Your task to perform on an android device: Open display settings Image 0: 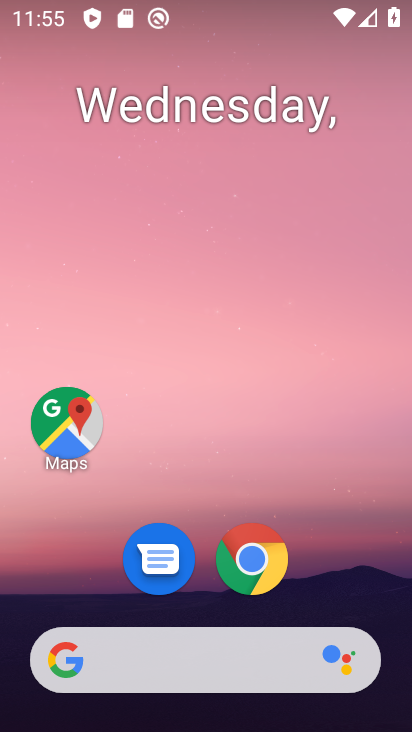
Step 0: drag from (92, 578) to (267, 44)
Your task to perform on an android device: Open display settings Image 1: 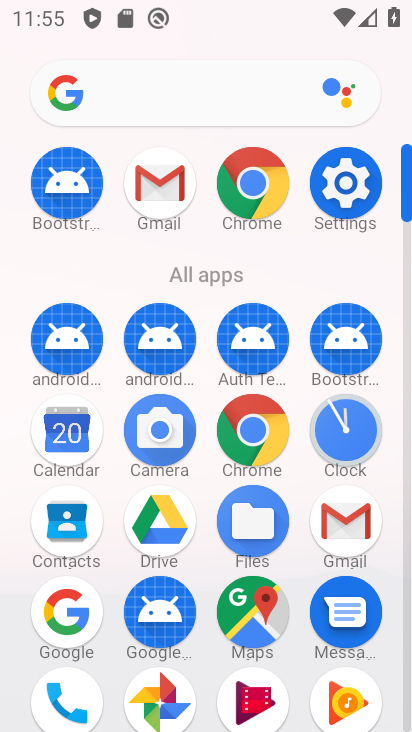
Step 1: click (353, 210)
Your task to perform on an android device: Open display settings Image 2: 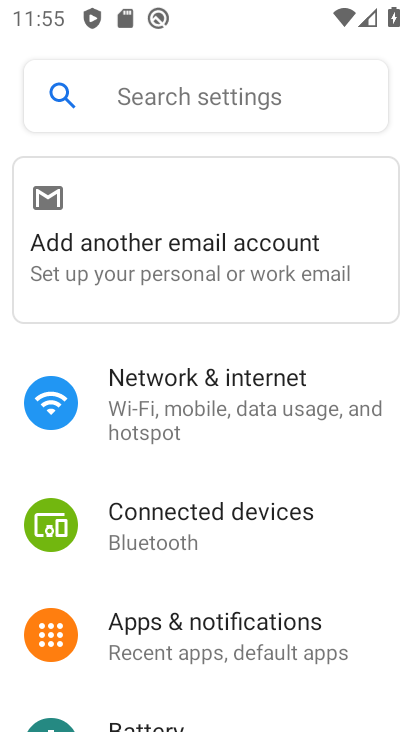
Step 2: drag from (184, 686) to (301, 241)
Your task to perform on an android device: Open display settings Image 3: 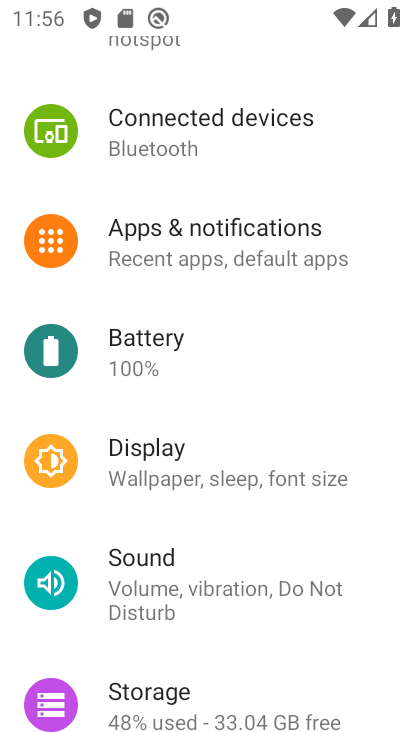
Step 3: click (139, 477)
Your task to perform on an android device: Open display settings Image 4: 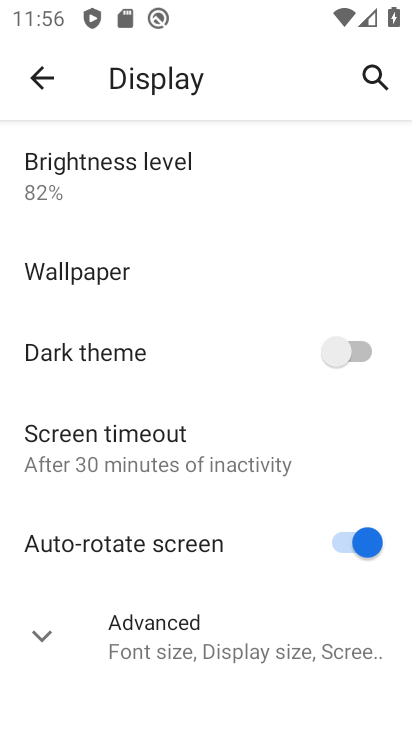
Step 4: task complete